Your task to perform on an android device: Empty the shopping cart on walmart.com. Add lg ultragear to the cart on walmart.com Image 0: 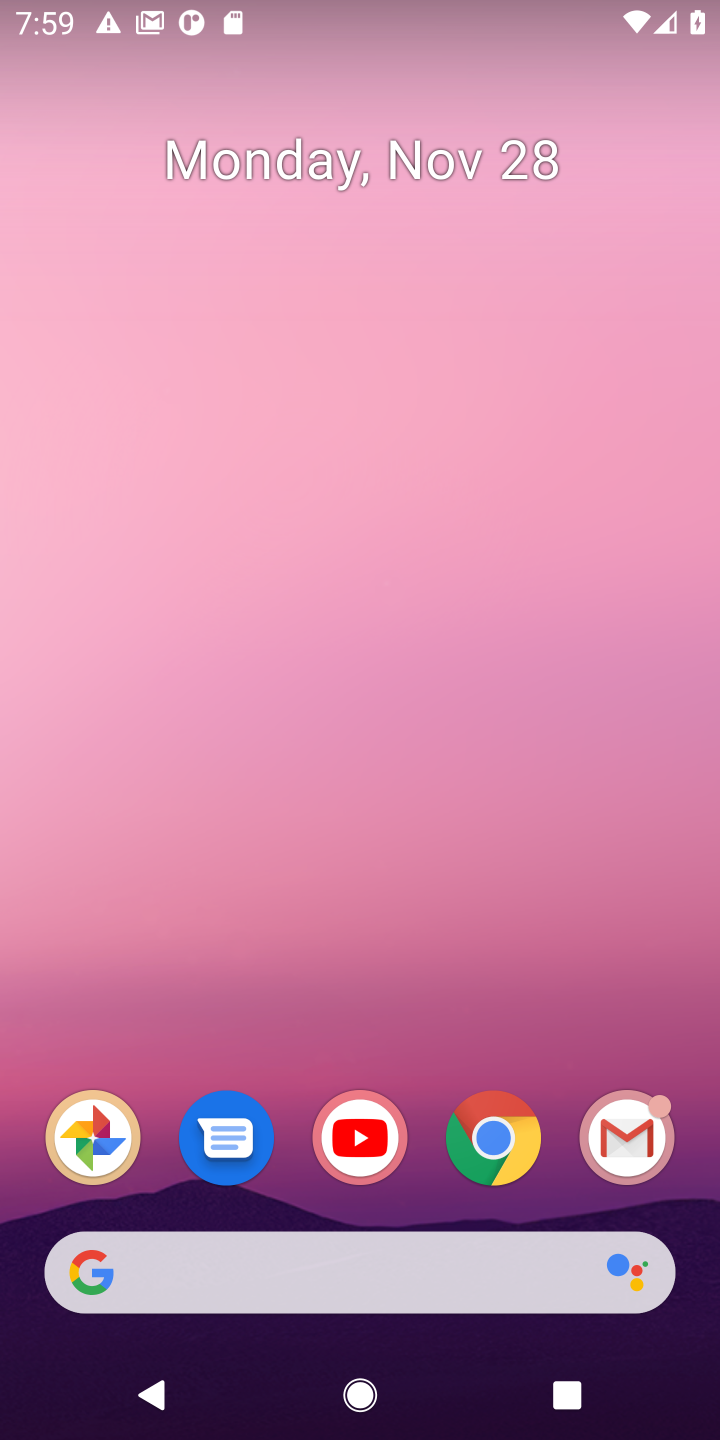
Step 0: click (502, 1156)
Your task to perform on an android device: Empty the shopping cart on walmart.com. Add lg ultragear to the cart on walmart.com Image 1: 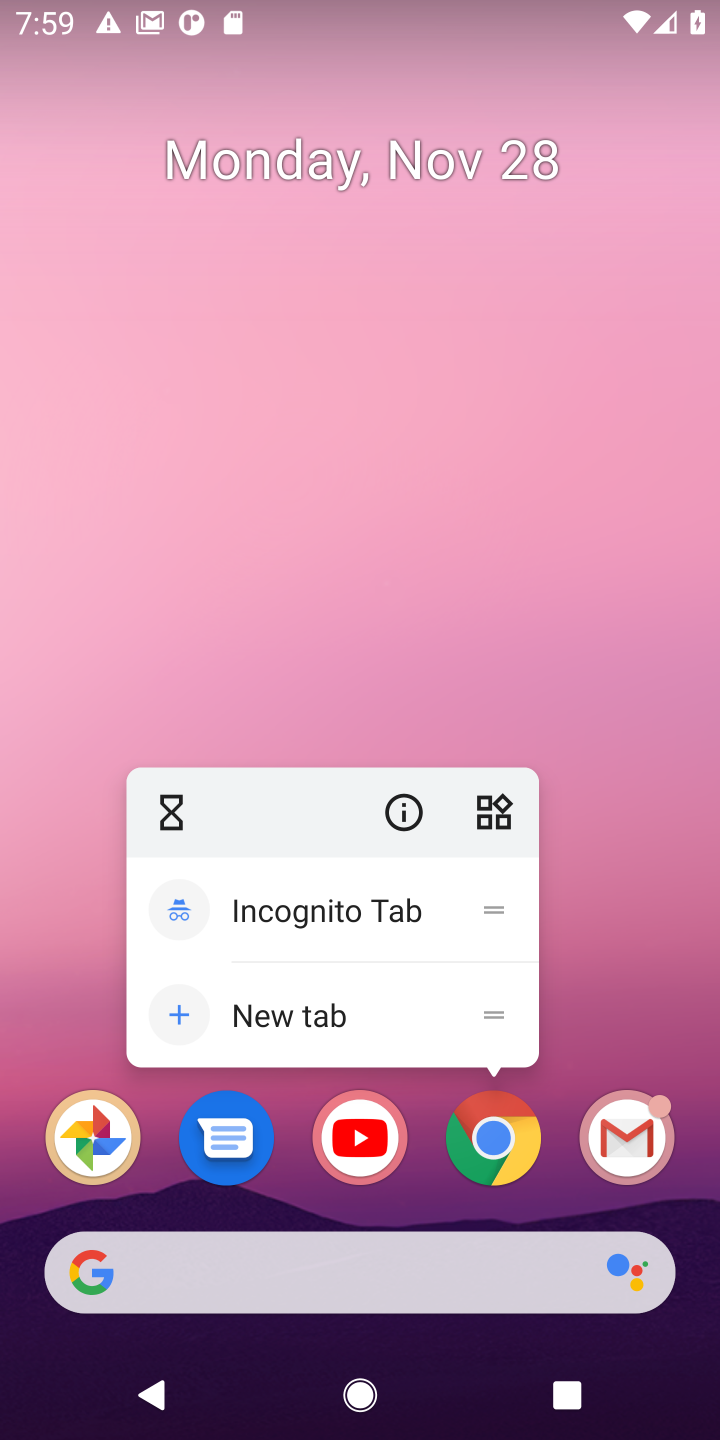
Step 1: click (583, 1025)
Your task to perform on an android device: Empty the shopping cart on walmart.com. Add lg ultragear to the cart on walmart.com Image 2: 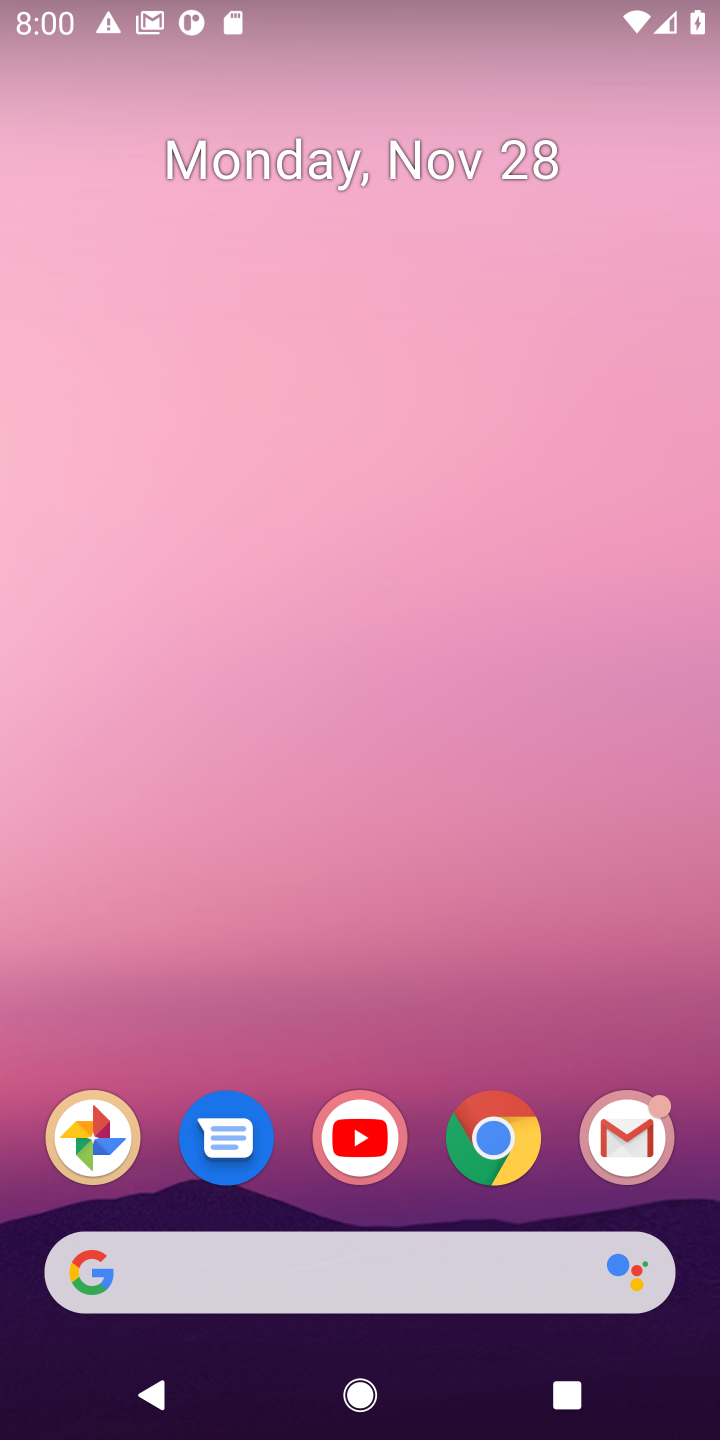
Step 2: click (495, 1127)
Your task to perform on an android device: Empty the shopping cart on walmart.com. Add lg ultragear to the cart on walmart.com Image 3: 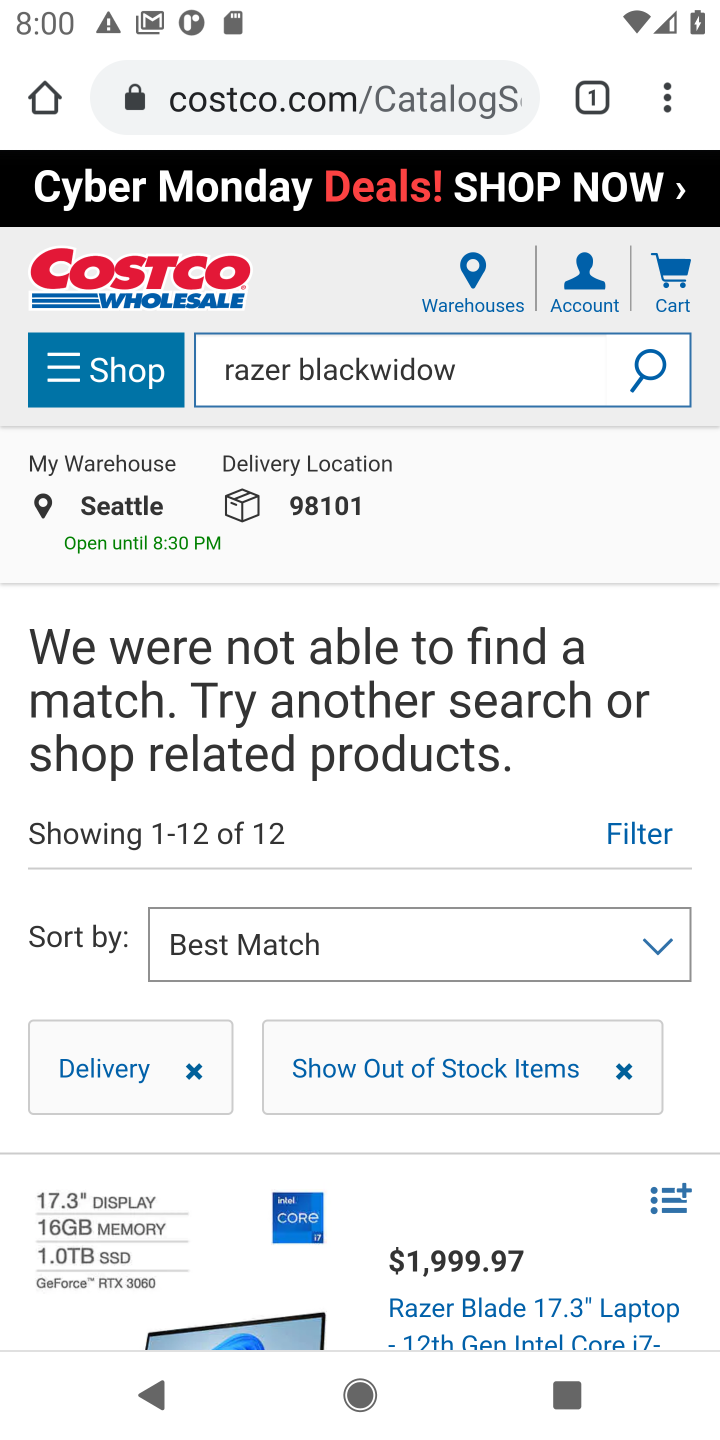
Step 3: click (313, 106)
Your task to perform on an android device: Empty the shopping cart on walmart.com. Add lg ultragear to the cart on walmart.com Image 4: 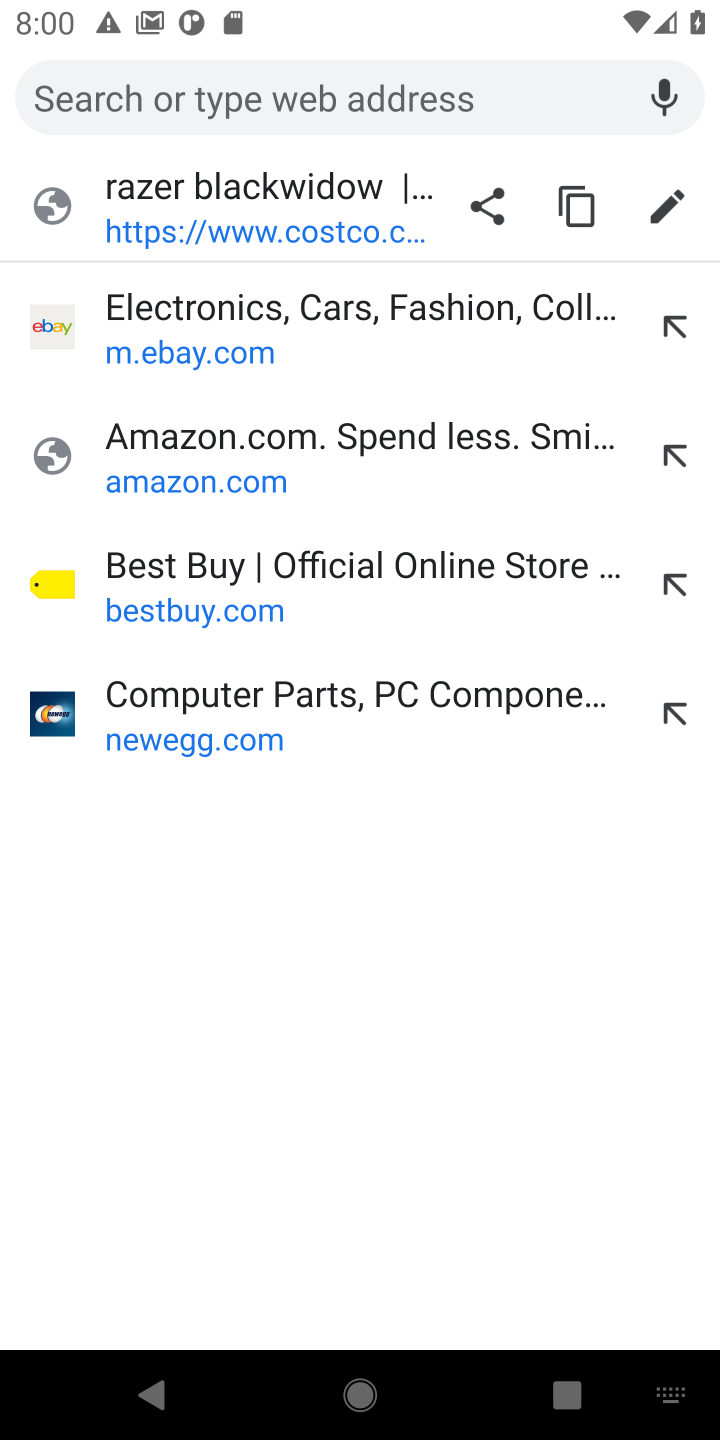
Step 4: type "walmart.com"
Your task to perform on an android device: Empty the shopping cart on walmart.com. Add lg ultragear to the cart on walmart.com Image 5: 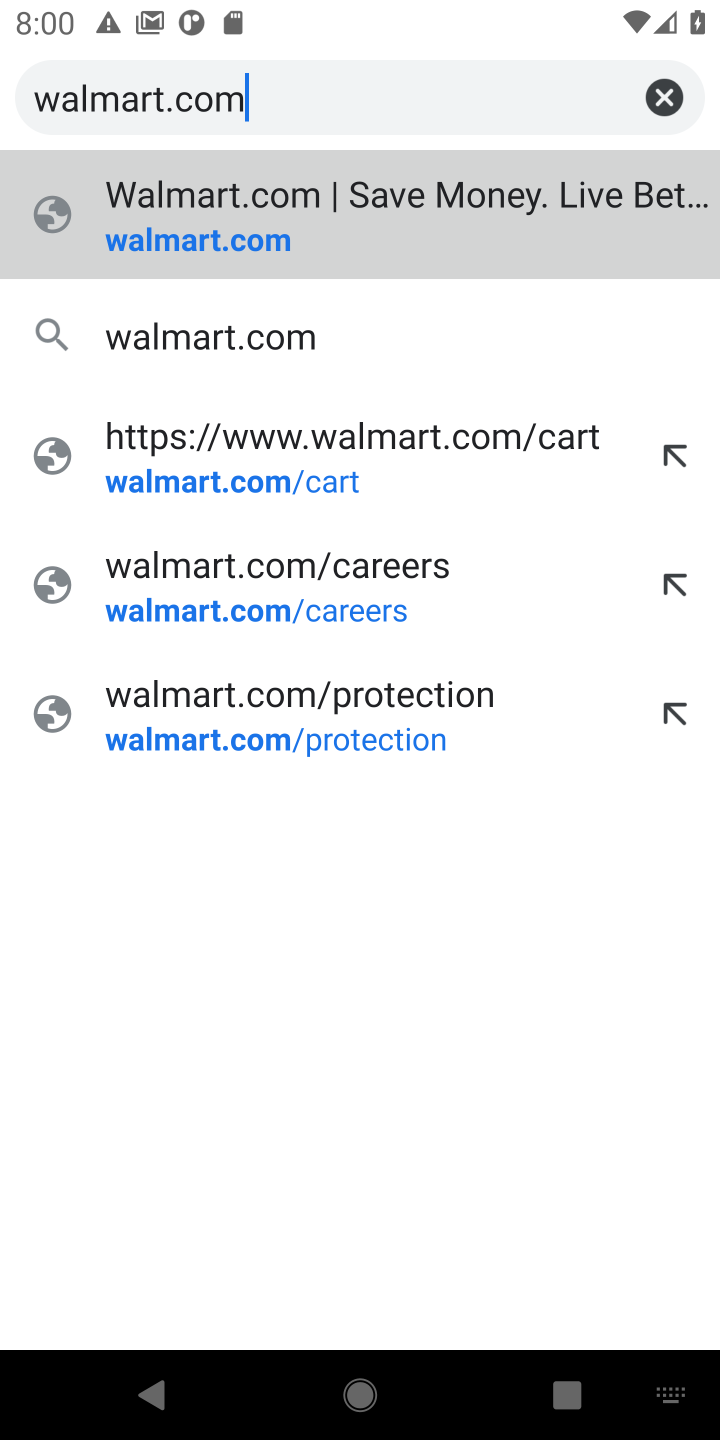
Step 5: click (215, 241)
Your task to perform on an android device: Empty the shopping cart on walmart.com. Add lg ultragear to the cart on walmart.com Image 6: 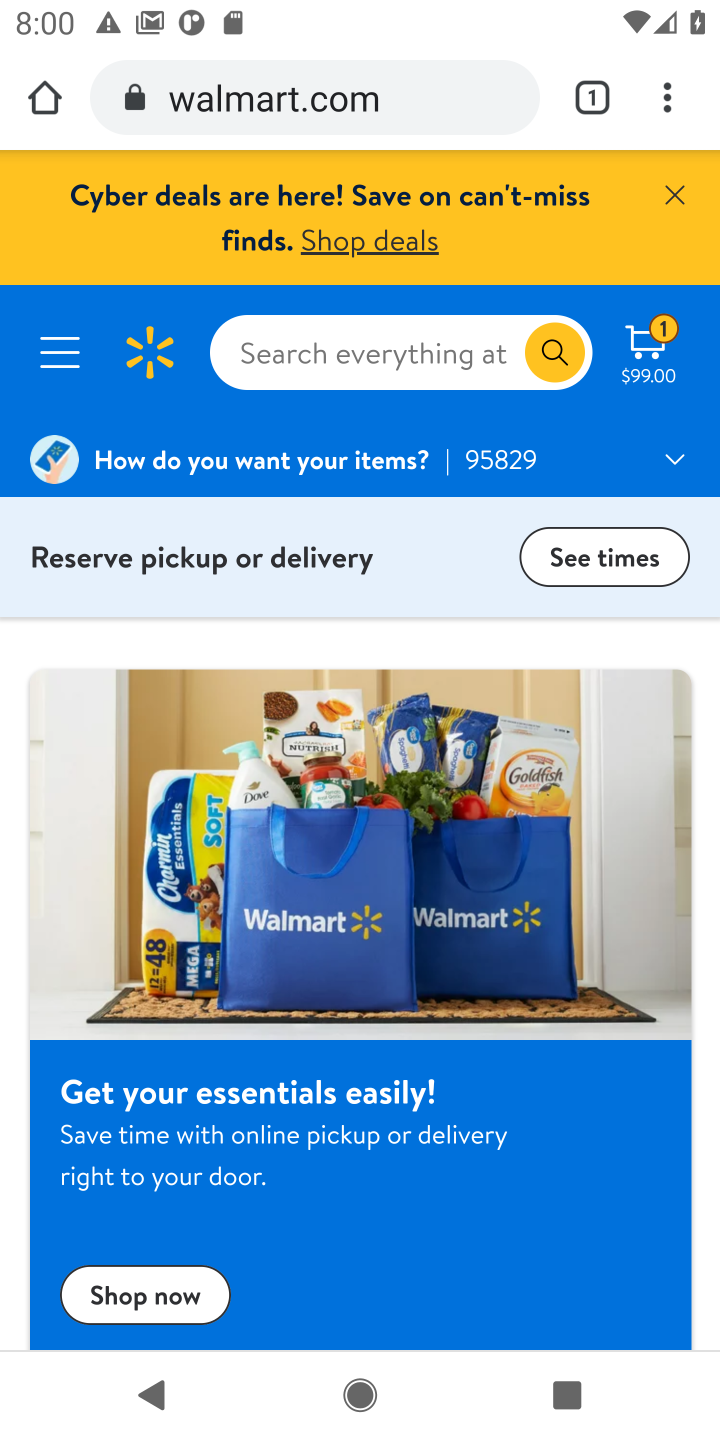
Step 6: click (641, 369)
Your task to perform on an android device: Empty the shopping cart on walmart.com. Add lg ultragear to the cart on walmart.com Image 7: 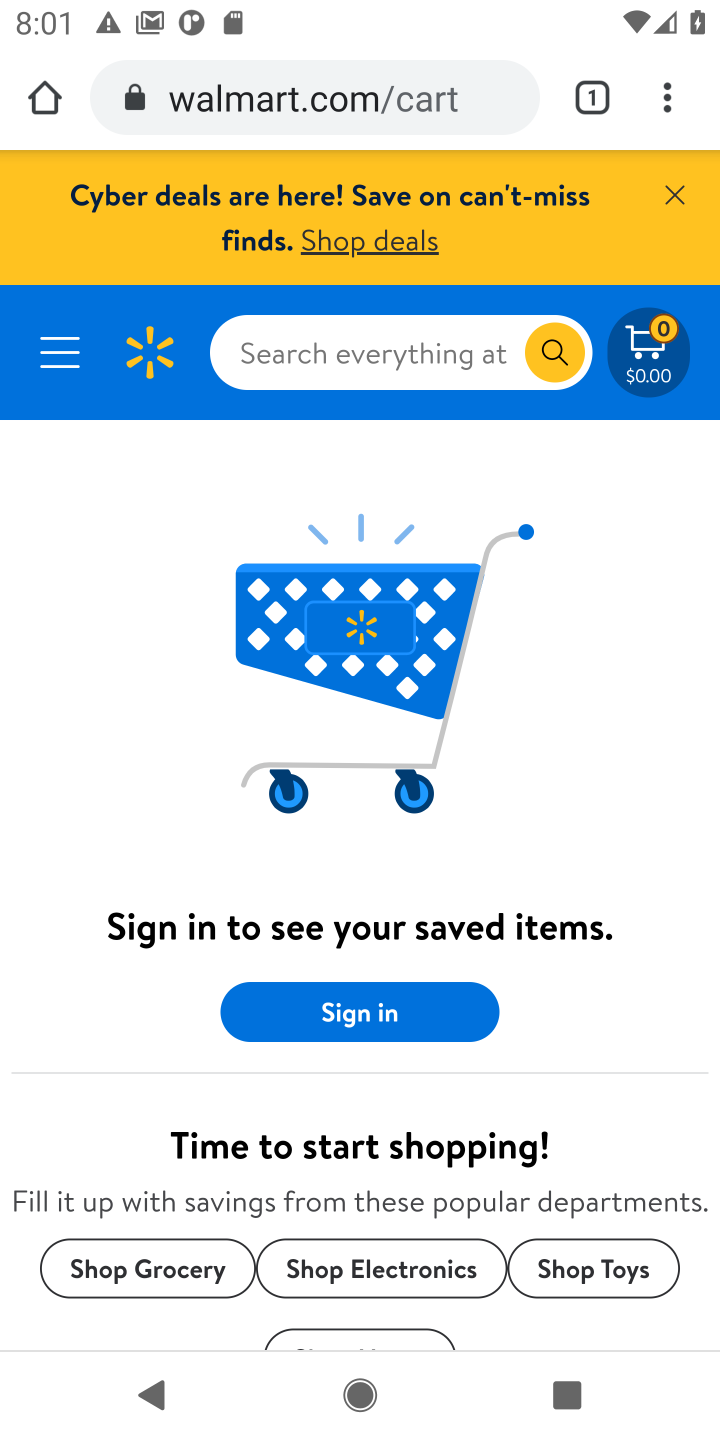
Step 7: click (339, 347)
Your task to perform on an android device: Empty the shopping cart on walmart.com. Add lg ultragear to the cart on walmart.com Image 8: 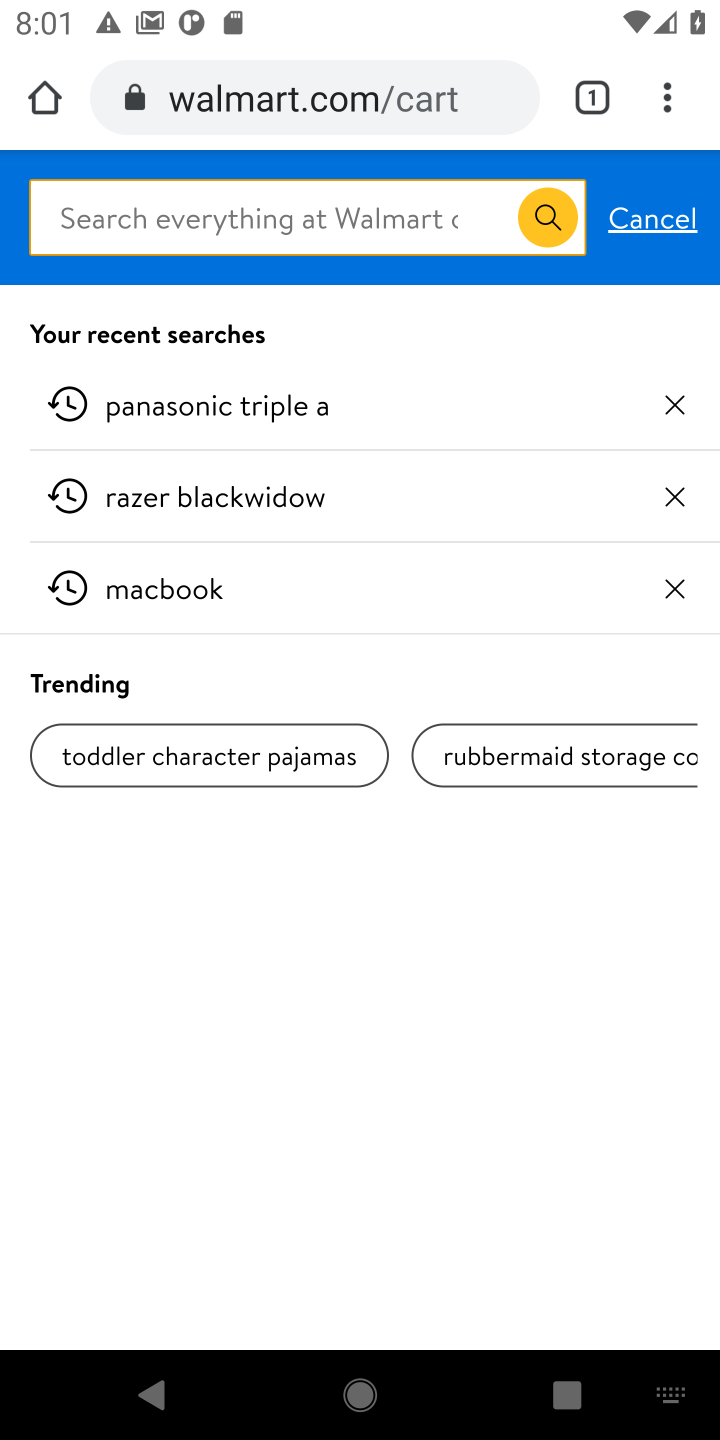
Step 8: type " lg ultragear"
Your task to perform on an android device: Empty the shopping cart on walmart.com. Add lg ultragear to the cart on walmart.com Image 9: 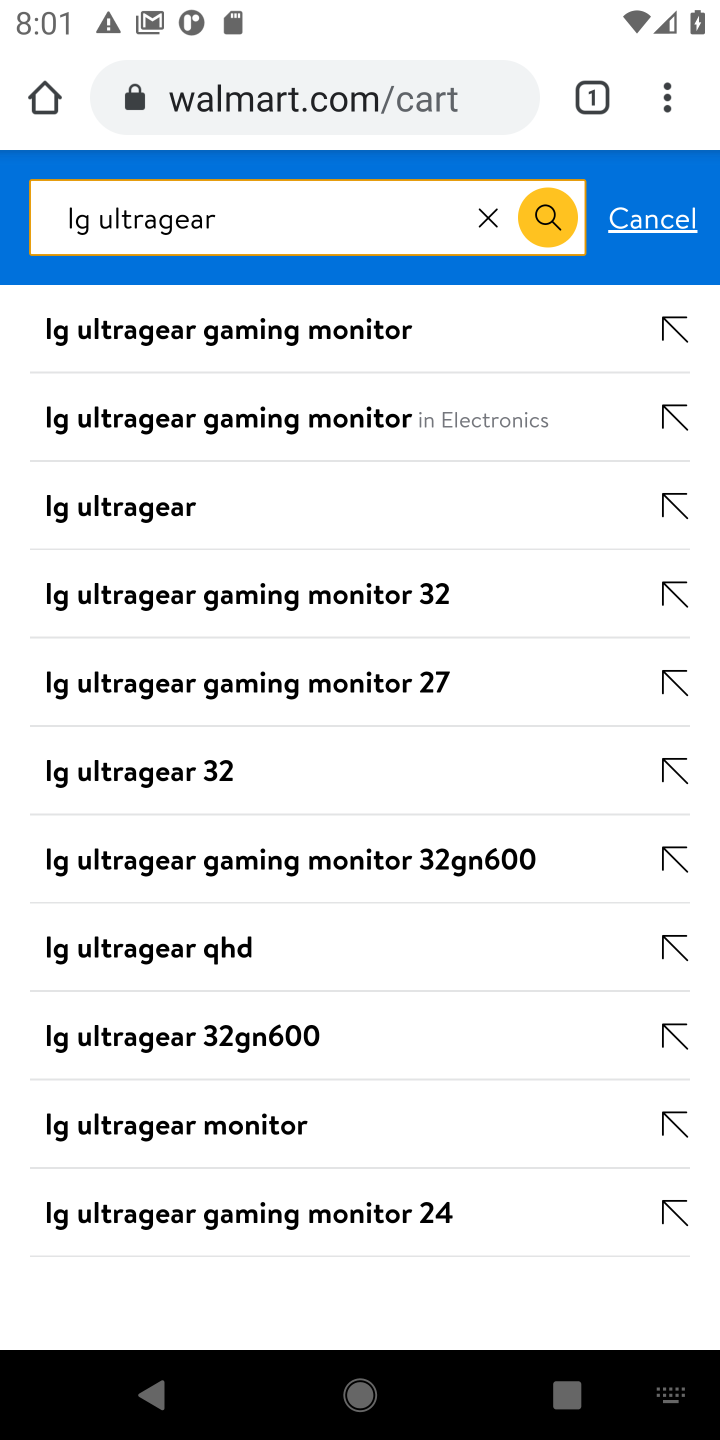
Step 9: click (102, 514)
Your task to perform on an android device: Empty the shopping cart on walmart.com. Add lg ultragear to the cart on walmart.com Image 10: 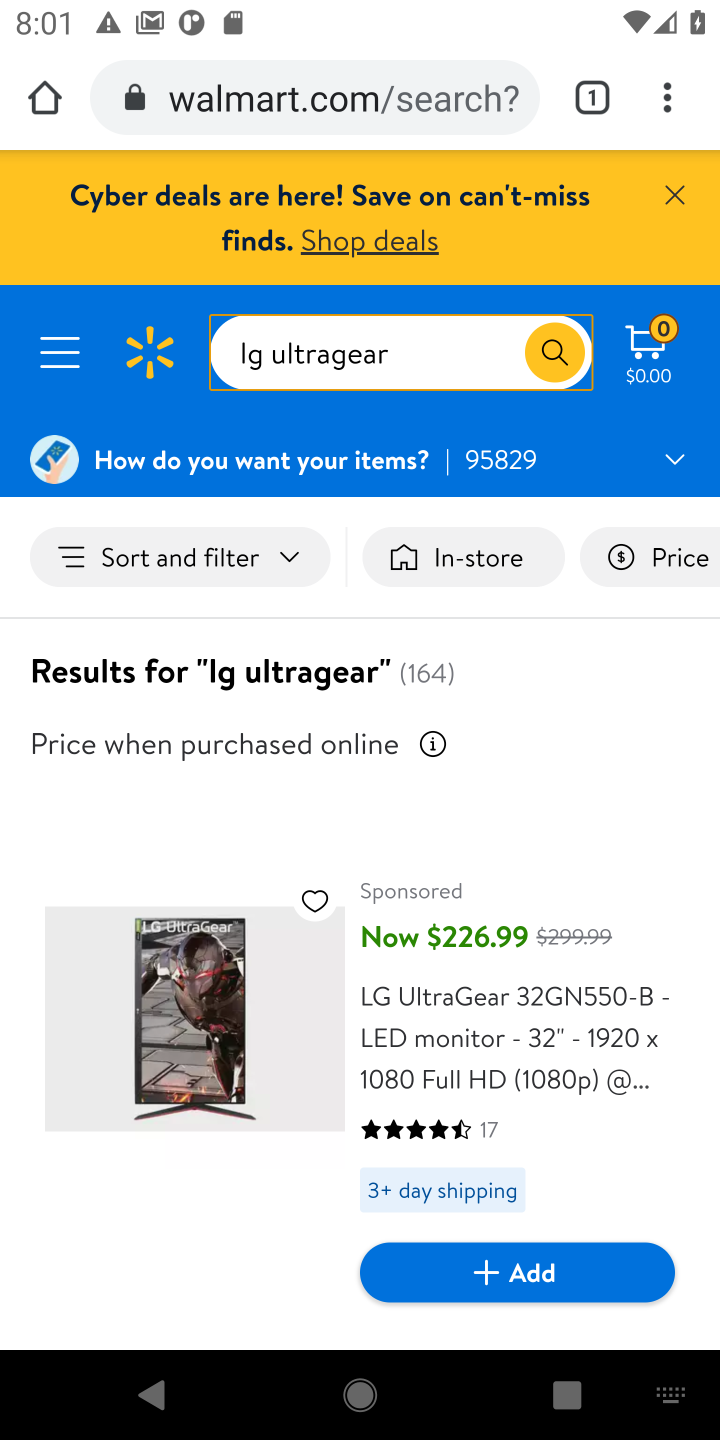
Step 10: drag from (255, 1002) to (302, 644)
Your task to perform on an android device: Empty the shopping cart on walmart.com. Add lg ultragear to the cart on walmart.com Image 11: 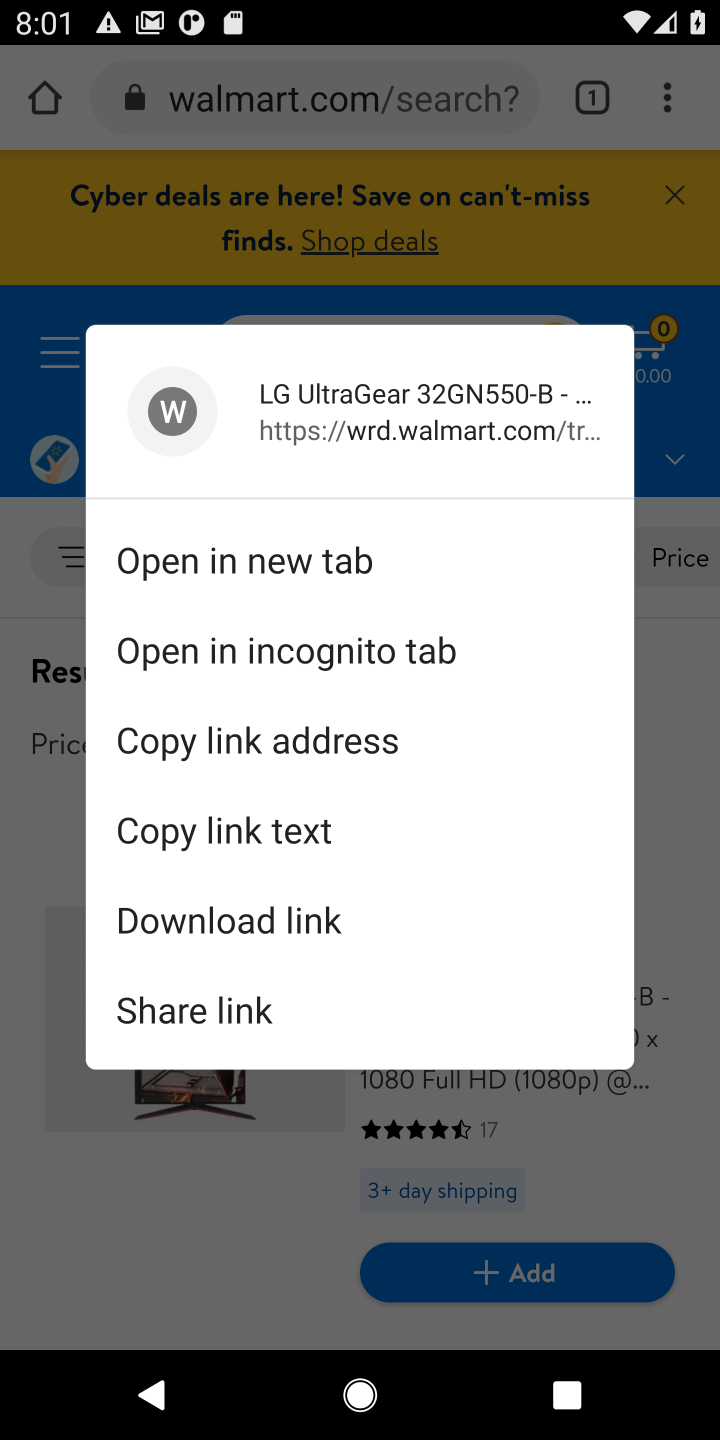
Step 11: click (687, 984)
Your task to perform on an android device: Empty the shopping cart on walmart.com. Add lg ultragear to the cart on walmart.com Image 12: 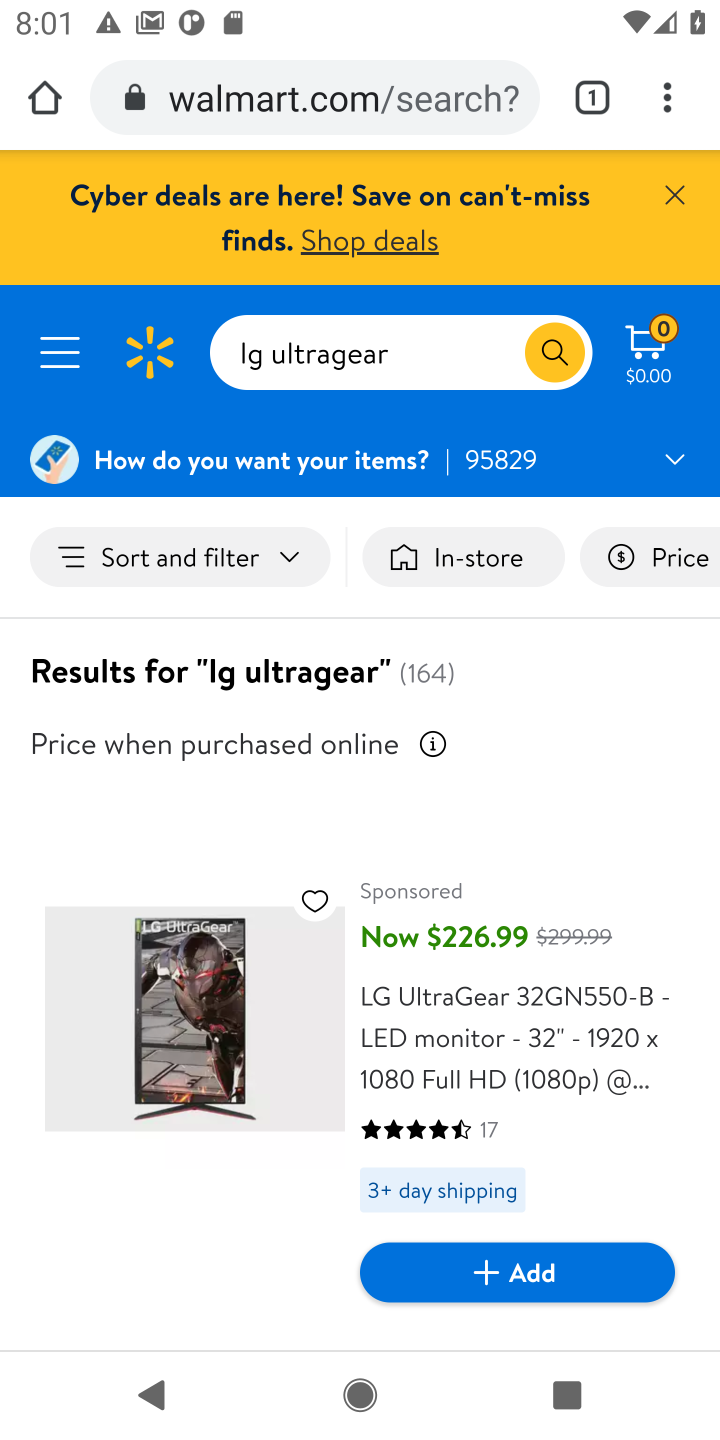
Step 12: click (506, 1276)
Your task to perform on an android device: Empty the shopping cart on walmart.com. Add lg ultragear to the cart on walmart.com Image 13: 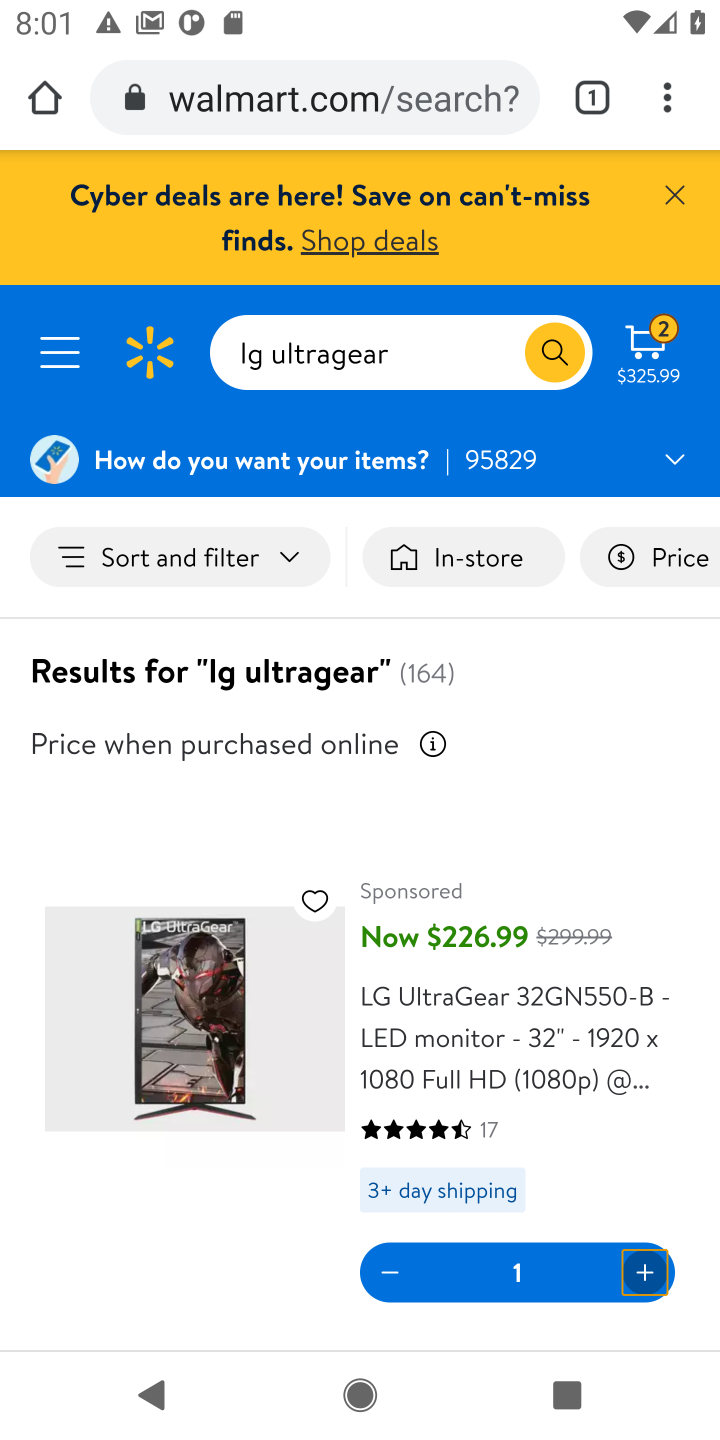
Step 13: task complete